Your task to perform on an android device: Open the calendar app, open the side menu, and click the "Day" option Image 0: 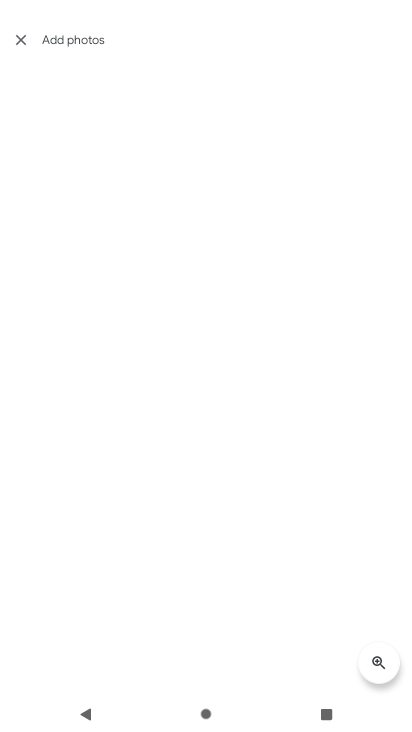
Step 0: press home button
Your task to perform on an android device: Open the calendar app, open the side menu, and click the "Day" option Image 1: 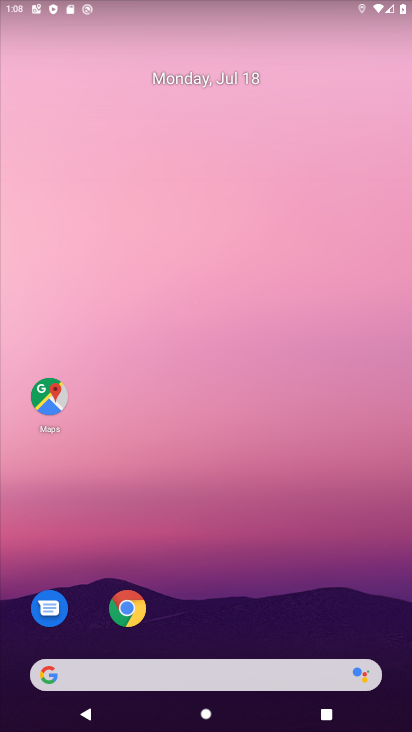
Step 1: drag from (322, 608) to (245, 210)
Your task to perform on an android device: Open the calendar app, open the side menu, and click the "Day" option Image 2: 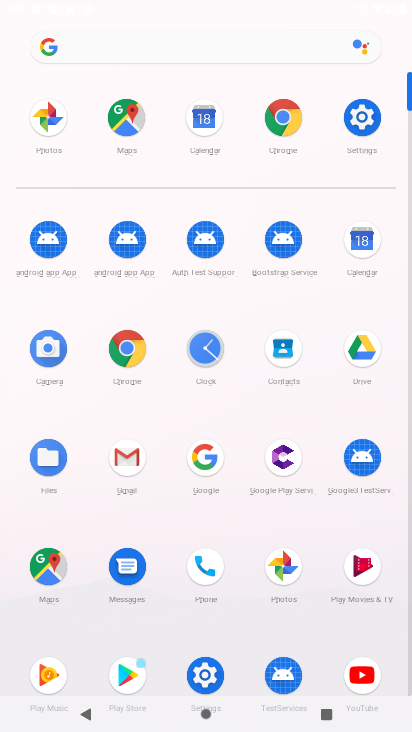
Step 2: click (365, 242)
Your task to perform on an android device: Open the calendar app, open the side menu, and click the "Day" option Image 3: 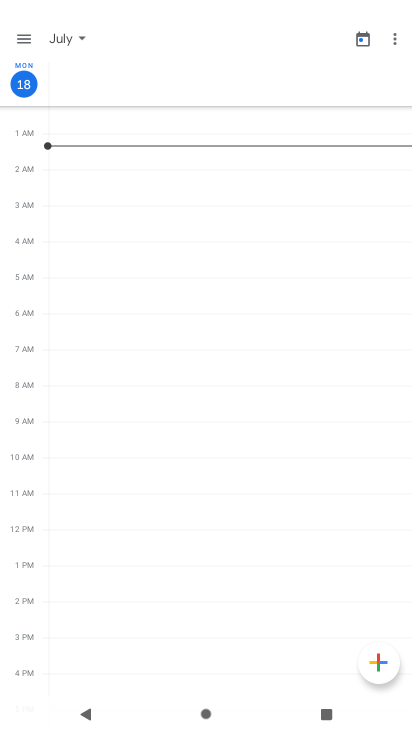
Step 3: click (24, 42)
Your task to perform on an android device: Open the calendar app, open the side menu, and click the "Day" option Image 4: 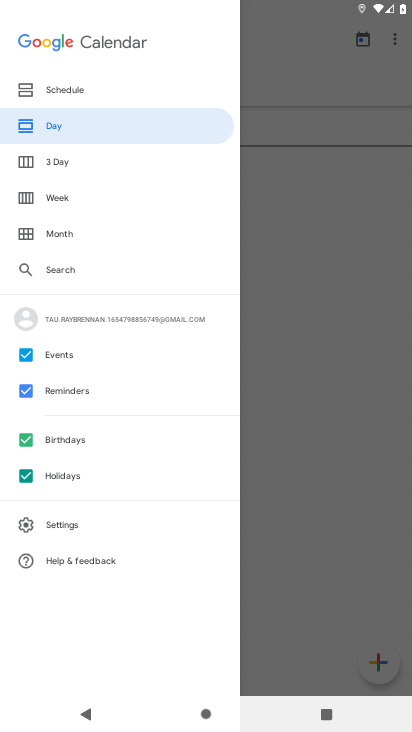
Step 4: click (56, 134)
Your task to perform on an android device: Open the calendar app, open the side menu, and click the "Day" option Image 5: 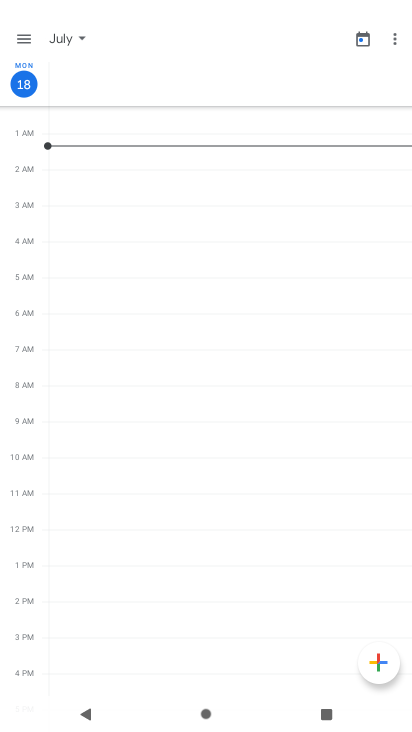
Step 5: task complete